Your task to perform on an android device: turn off notifications settings in the gmail app Image 0: 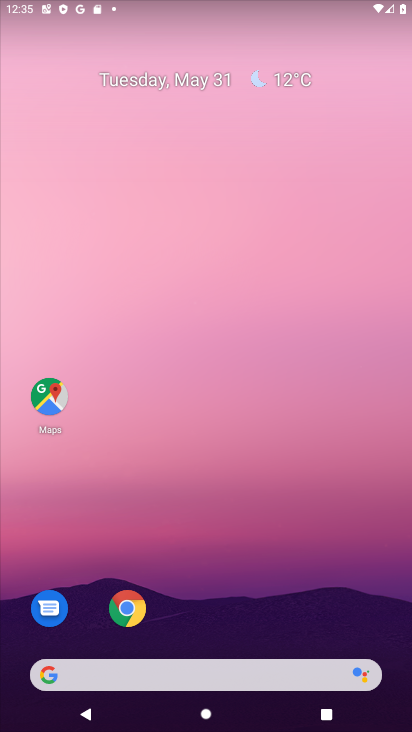
Step 0: drag from (191, 606) to (226, 44)
Your task to perform on an android device: turn off notifications settings in the gmail app Image 1: 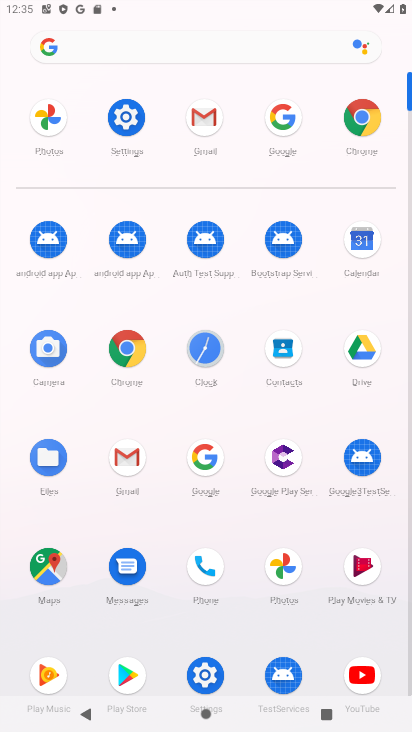
Step 1: click (211, 115)
Your task to perform on an android device: turn off notifications settings in the gmail app Image 2: 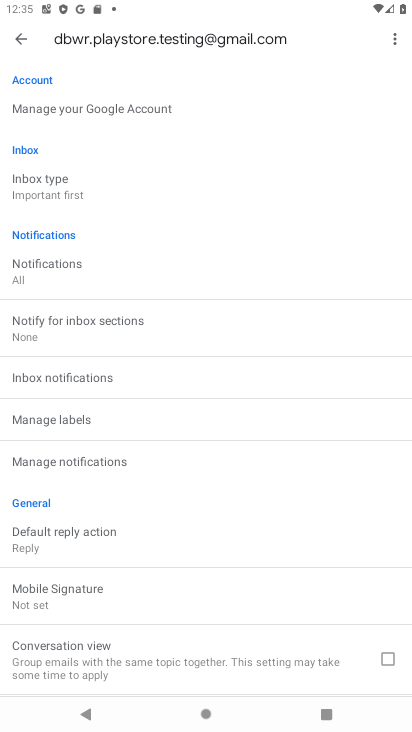
Step 2: click (25, 271)
Your task to perform on an android device: turn off notifications settings in the gmail app Image 3: 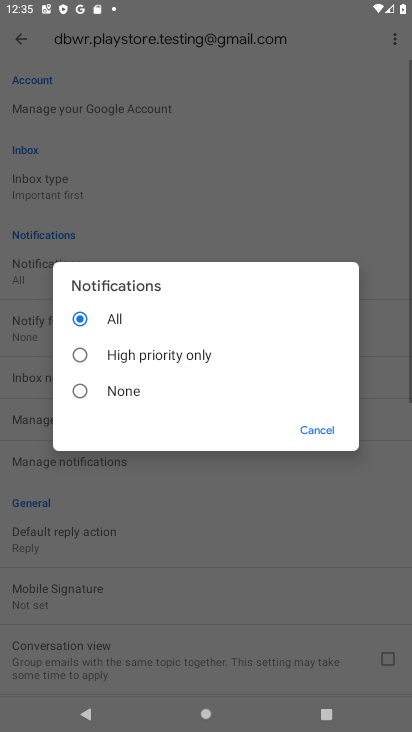
Step 3: click (98, 393)
Your task to perform on an android device: turn off notifications settings in the gmail app Image 4: 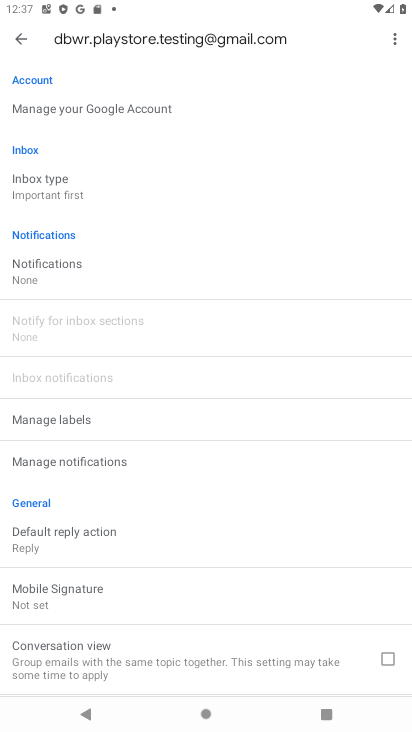
Step 4: task complete